Your task to perform on an android device: Show me recent news Image 0: 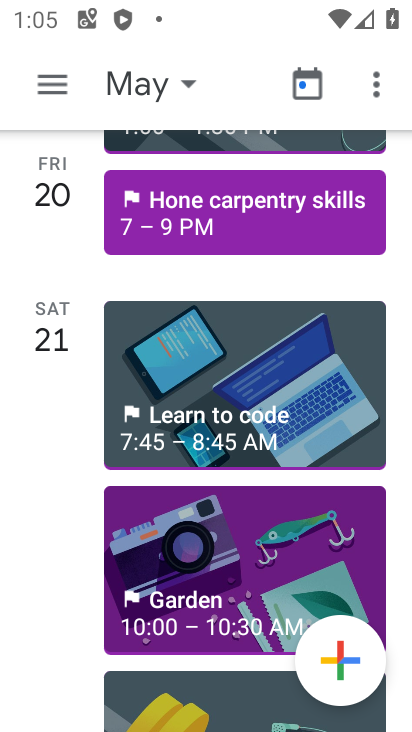
Step 0: press home button
Your task to perform on an android device: Show me recent news Image 1: 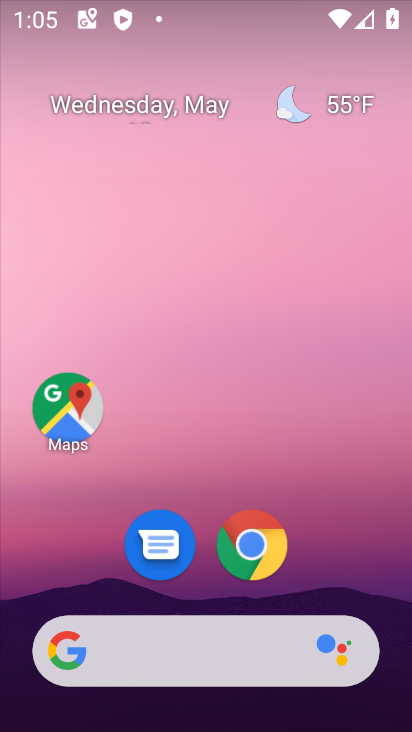
Step 1: task complete